Your task to perform on an android device: Go to wifi settings Image 0: 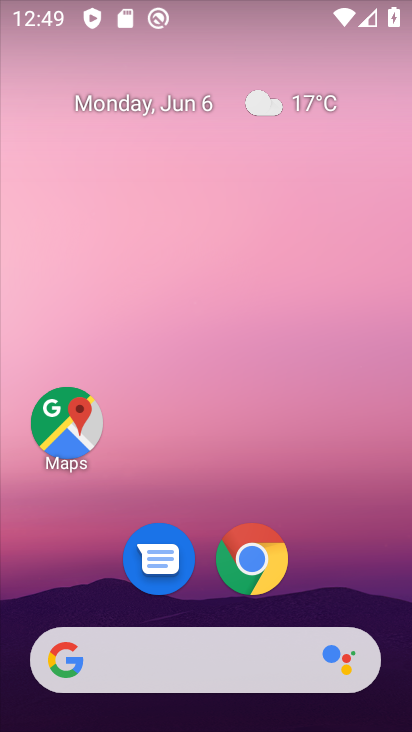
Step 0: drag from (226, 603) to (234, 147)
Your task to perform on an android device: Go to wifi settings Image 1: 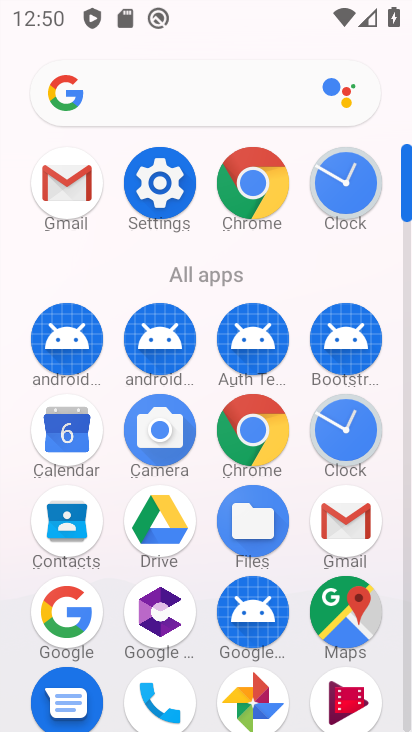
Step 1: click (166, 196)
Your task to perform on an android device: Go to wifi settings Image 2: 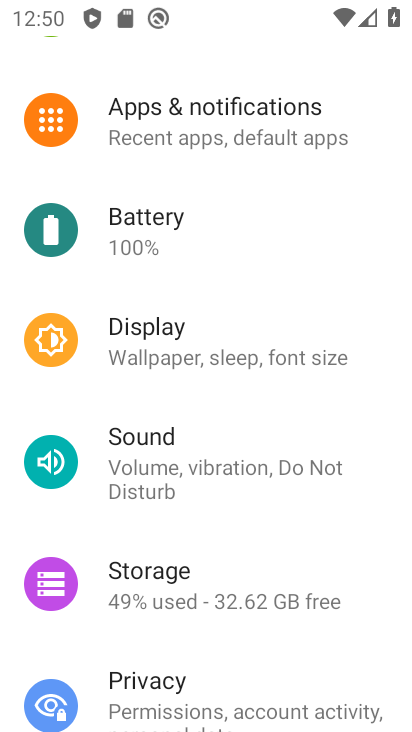
Step 2: drag from (190, 261) to (188, 575)
Your task to perform on an android device: Go to wifi settings Image 3: 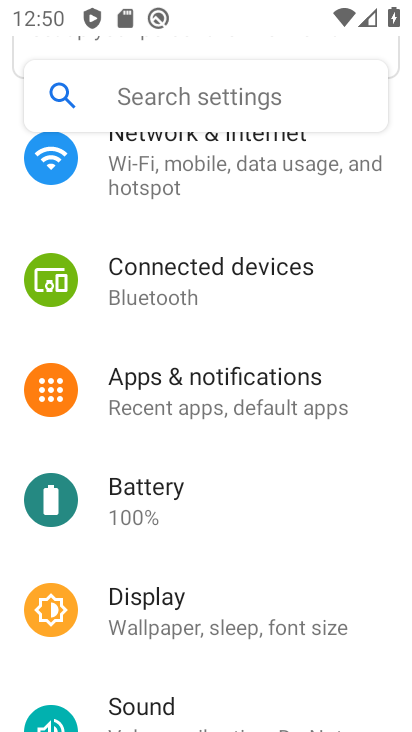
Step 3: drag from (212, 338) to (192, 614)
Your task to perform on an android device: Go to wifi settings Image 4: 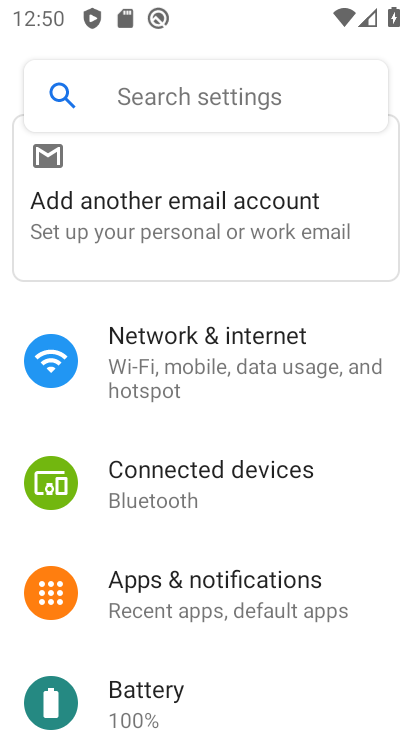
Step 4: click (236, 355)
Your task to perform on an android device: Go to wifi settings Image 5: 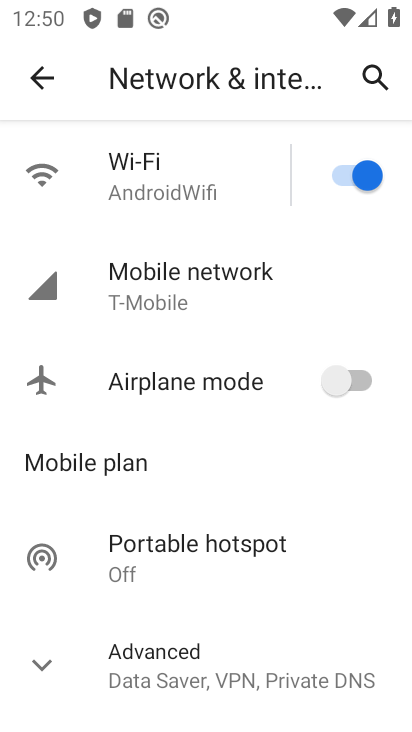
Step 5: click (180, 190)
Your task to perform on an android device: Go to wifi settings Image 6: 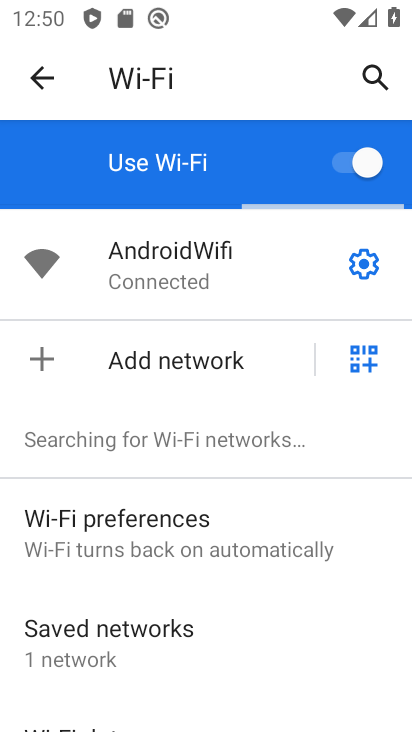
Step 6: task complete